Your task to perform on an android device: turn off location Image 0: 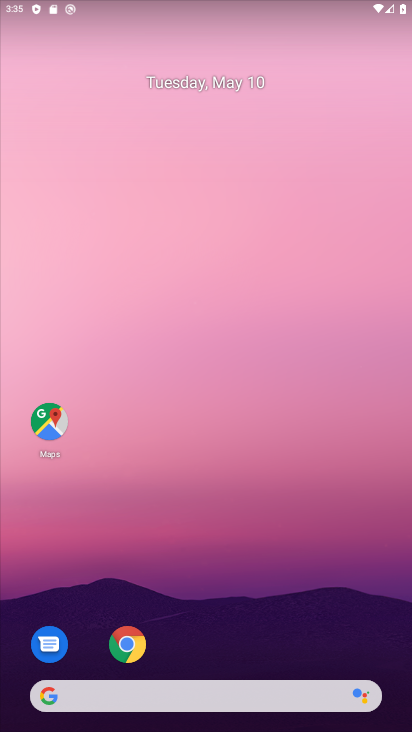
Step 0: press home button
Your task to perform on an android device: turn off location Image 1: 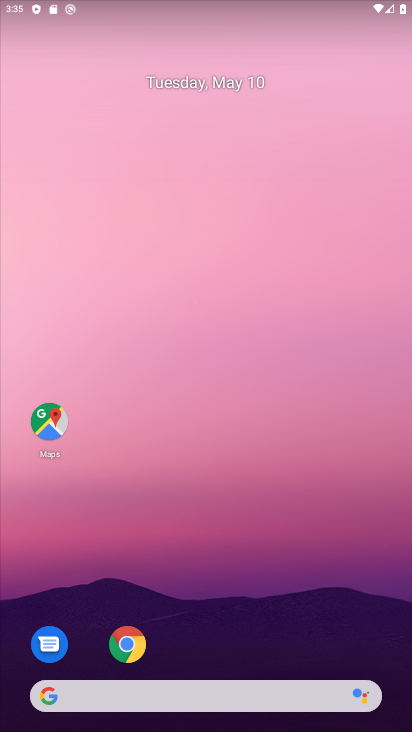
Step 1: drag from (218, 652) to (288, 140)
Your task to perform on an android device: turn off location Image 2: 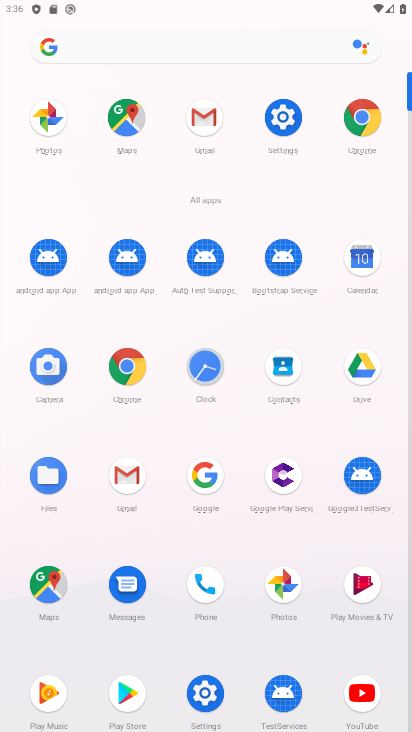
Step 2: click (199, 691)
Your task to perform on an android device: turn off location Image 3: 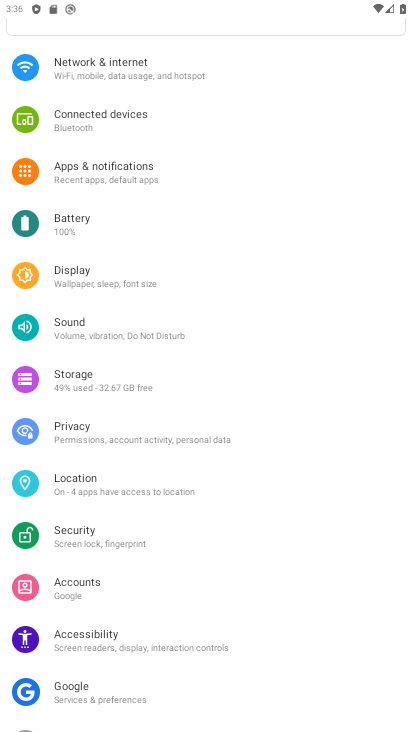
Step 3: click (92, 486)
Your task to perform on an android device: turn off location Image 4: 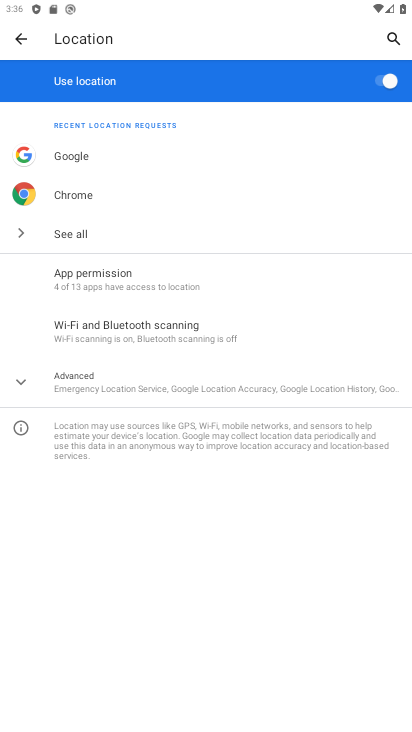
Step 4: click (378, 75)
Your task to perform on an android device: turn off location Image 5: 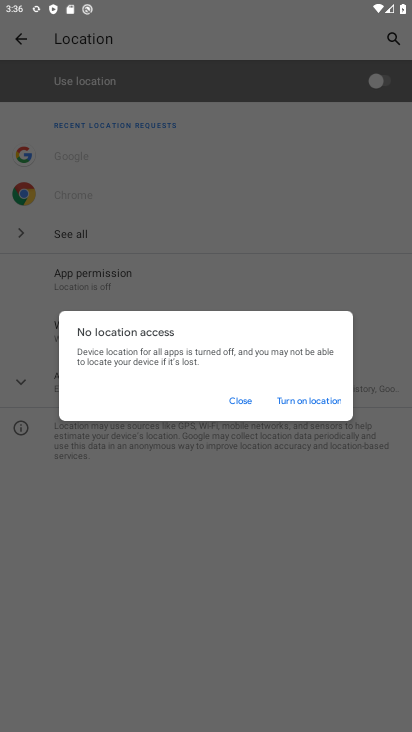
Step 5: click (243, 400)
Your task to perform on an android device: turn off location Image 6: 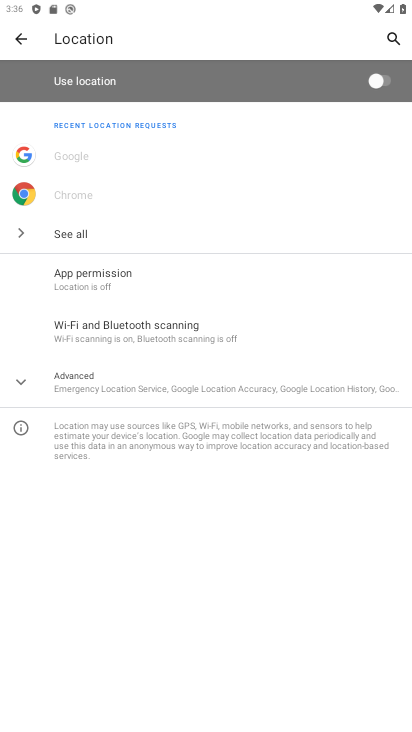
Step 6: task complete